Your task to perform on an android device: create a new album in the google photos Image 0: 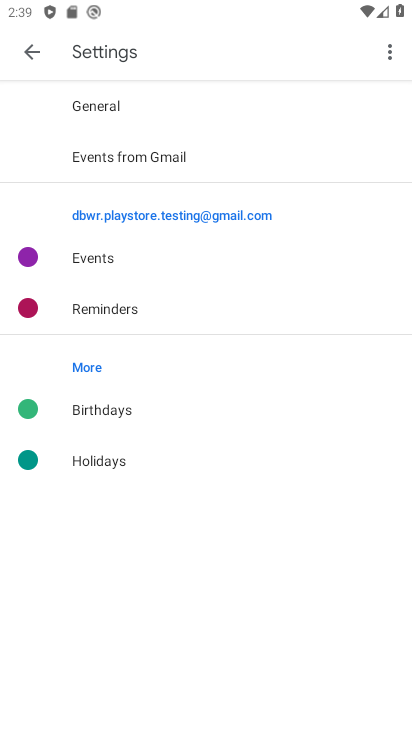
Step 0: press home button
Your task to perform on an android device: create a new album in the google photos Image 1: 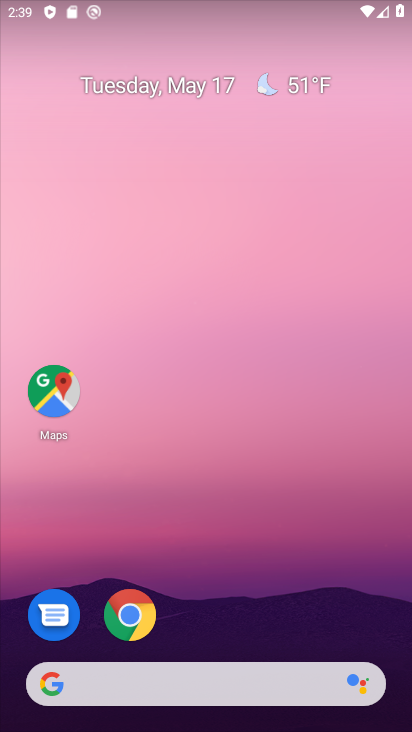
Step 1: drag from (219, 617) to (303, 296)
Your task to perform on an android device: create a new album in the google photos Image 2: 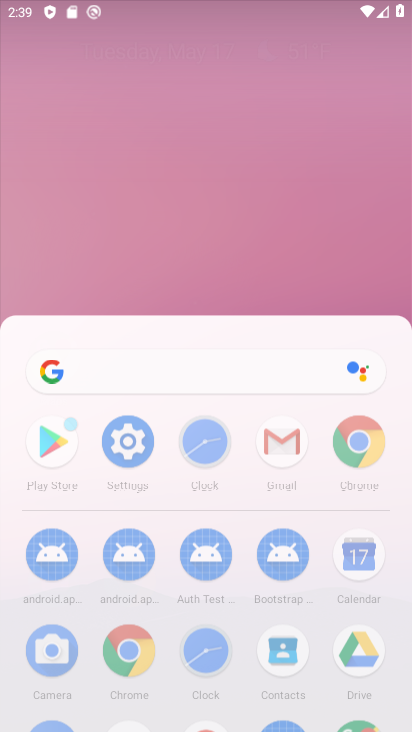
Step 2: click (332, 113)
Your task to perform on an android device: create a new album in the google photos Image 3: 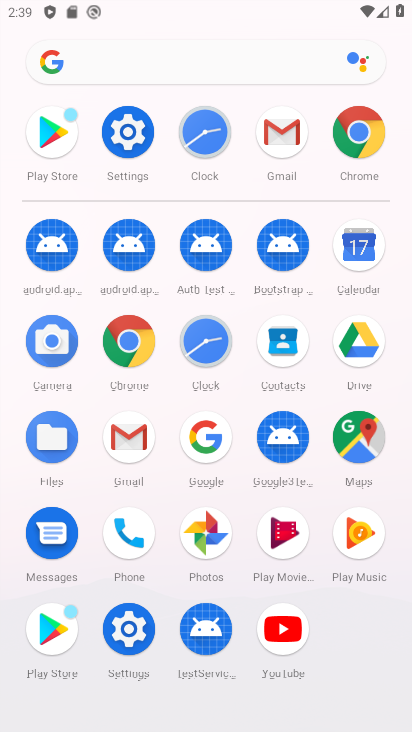
Step 3: click (205, 523)
Your task to perform on an android device: create a new album in the google photos Image 4: 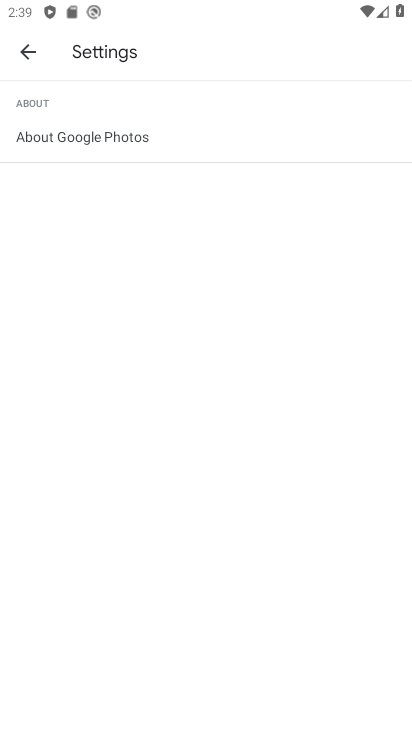
Step 4: click (28, 50)
Your task to perform on an android device: create a new album in the google photos Image 5: 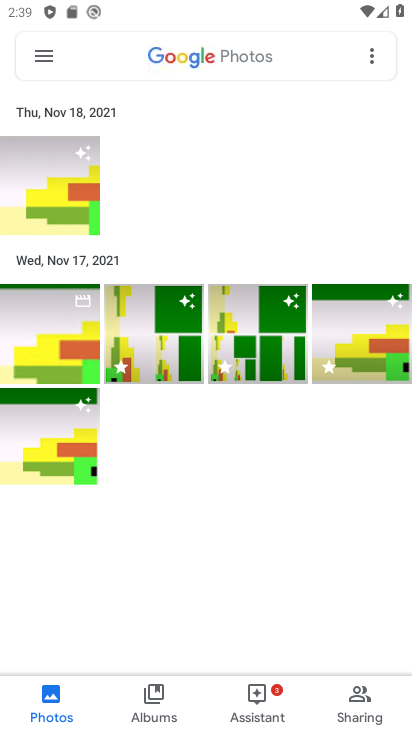
Step 5: click (149, 688)
Your task to perform on an android device: create a new album in the google photos Image 6: 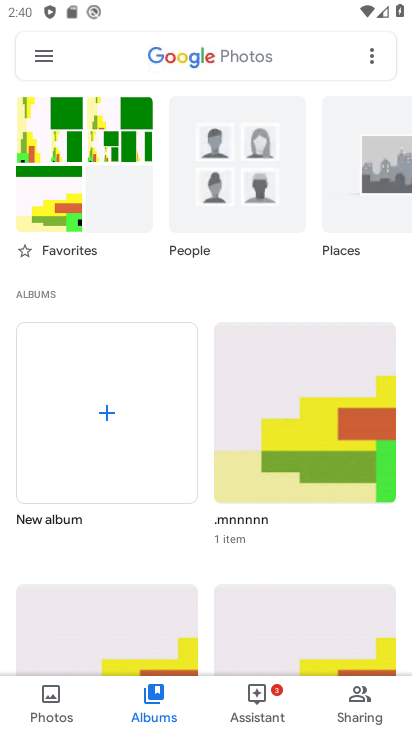
Step 6: click (375, 58)
Your task to perform on an android device: create a new album in the google photos Image 7: 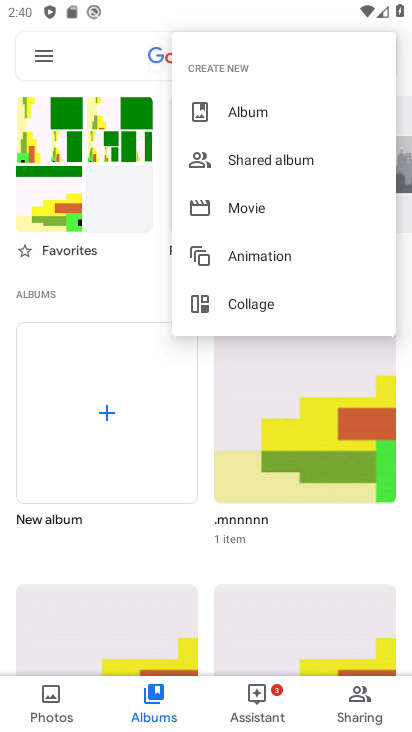
Step 7: click (234, 110)
Your task to perform on an android device: create a new album in the google photos Image 8: 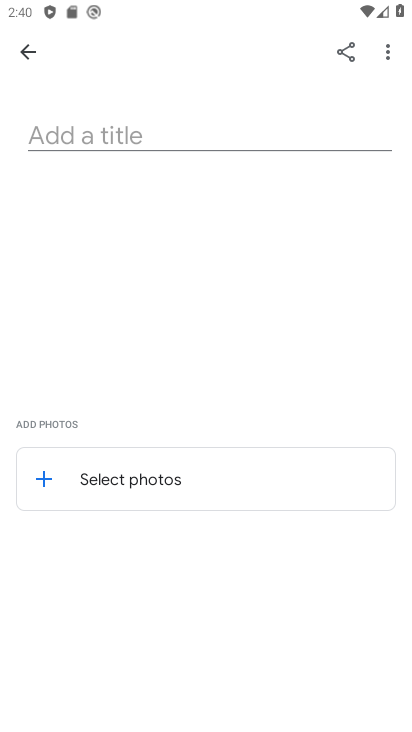
Step 8: click (58, 486)
Your task to perform on an android device: create a new album in the google photos Image 9: 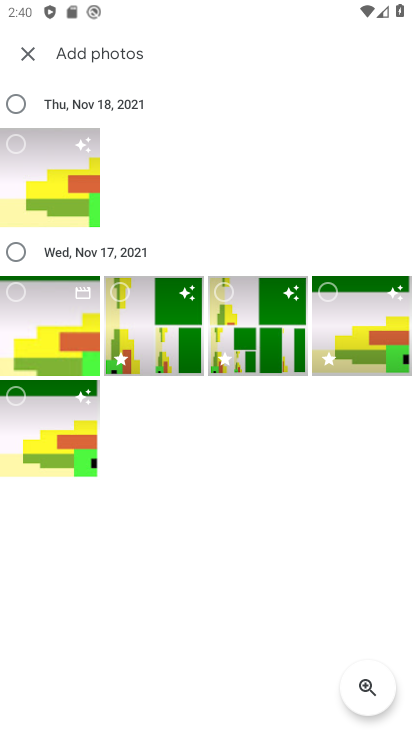
Step 9: click (63, 317)
Your task to perform on an android device: create a new album in the google photos Image 10: 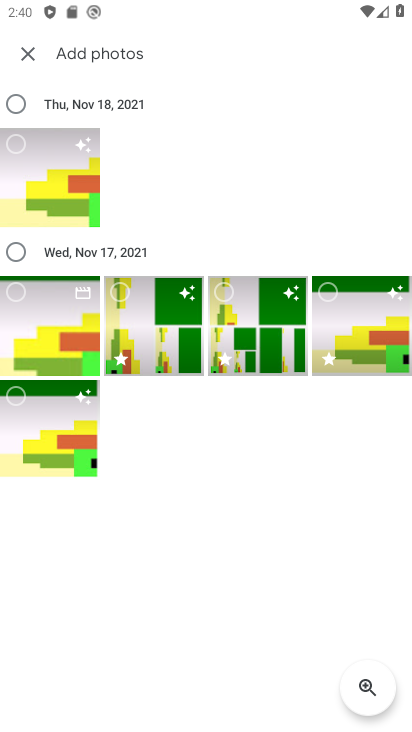
Step 10: click (51, 468)
Your task to perform on an android device: create a new album in the google photos Image 11: 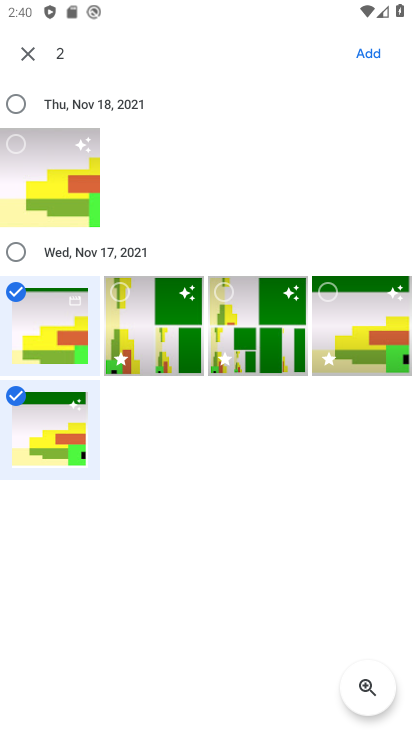
Step 11: click (354, 317)
Your task to perform on an android device: create a new album in the google photos Image 12: 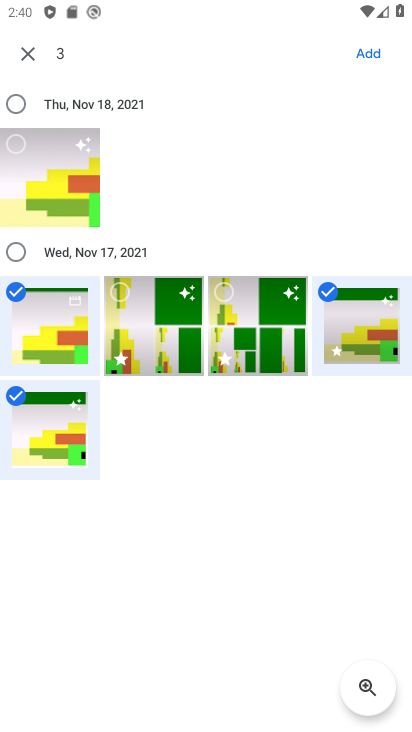
Step 12: click (376, 46)
Your task to perform on an android device: create a new album in the google photos Image 13: 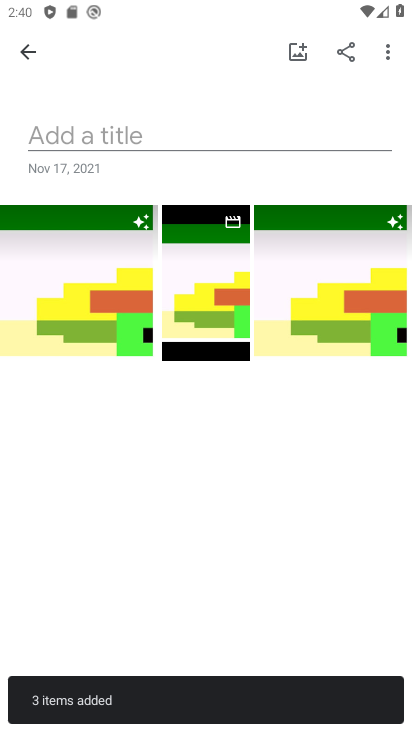
Step 13: click (130, 130)
Your task to perform on an android device: create a new album in the google photos Image 14: 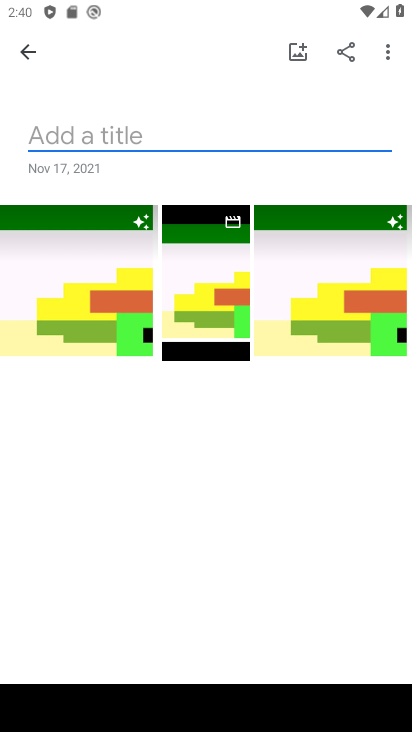
Step 14: type "hvfdx"
Your task to perform on an android device: create a new album in the google photos Image 15: 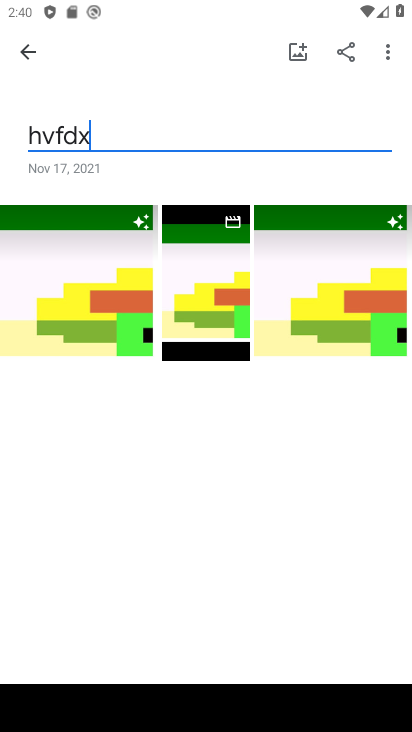
Step 15: click (211, 567)
Your task to perform on an android device: create a new album in the google photos Image 16: 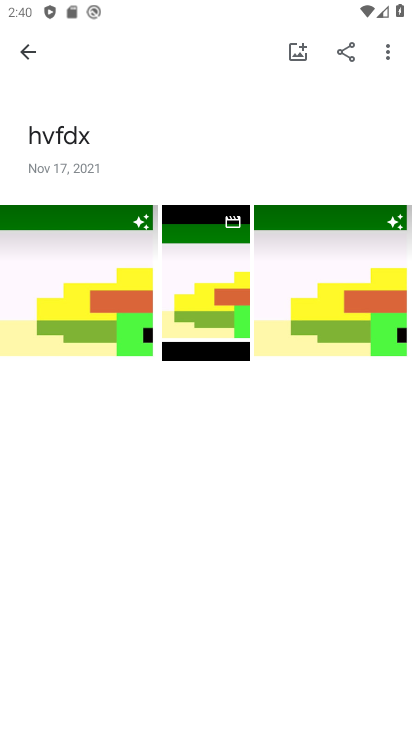
Step 16: task complete